Your task to perform on an android device: turn off notifications settings in the gmail app Image 0: 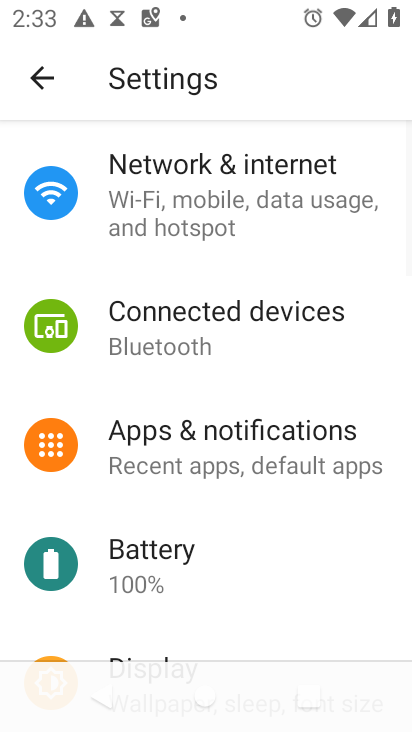
Step 0: press back button
Your task to perform on an android device: turn off notifications settings in the gmail app Image 1: 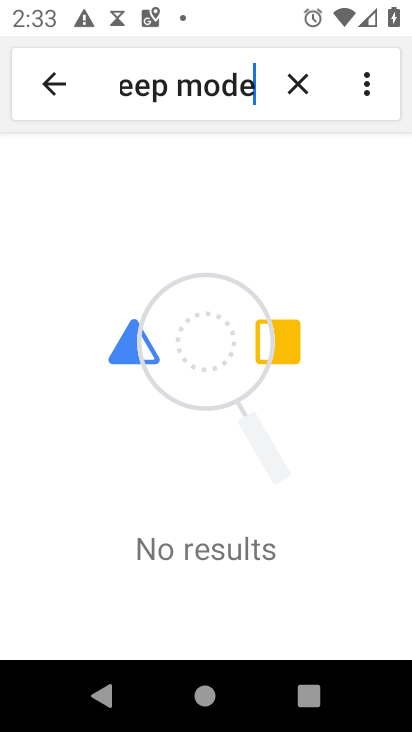
Step 1: press back button
Your task to perform on an android device: turn off notifications settings in the gmail app Image 2: 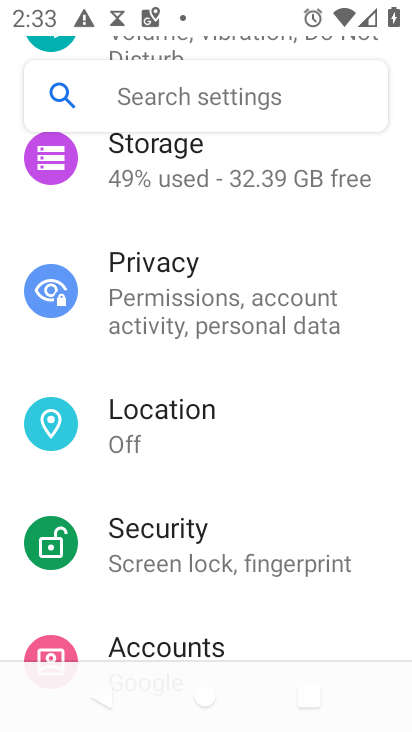
Step 2: press back button
Your task to perform on an android device: turn off notifications settings in the gmail app Image 3: 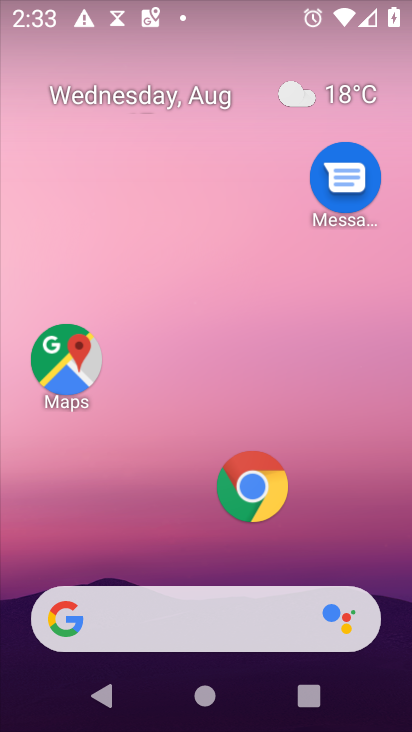
Step 3: drag from (145, 561) to (254, 6)
Your task to perform on an android device: turn off notifications settings in the gmail app Image 4: 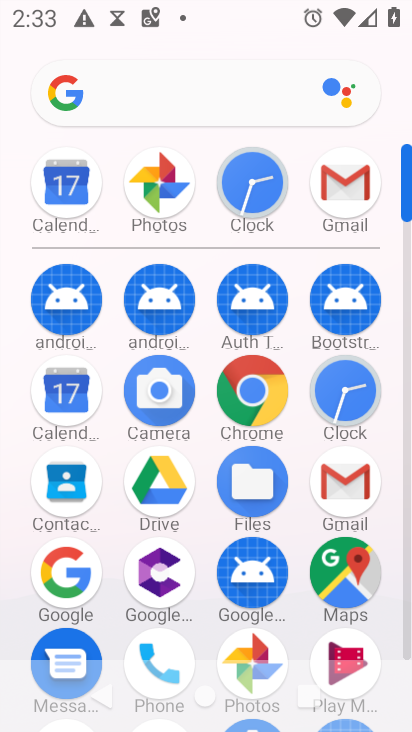
Step 4: click (349, 198)
Your task to perform on an android device: turn off notifications settings in the gmail app Image 5: 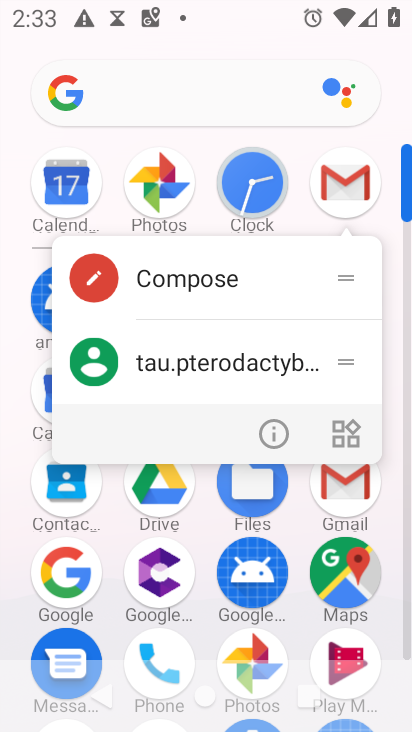
Step 5: click (270, 433)
Your task to perform on an android device: turn off notifications settings in the gmail app Image 6: 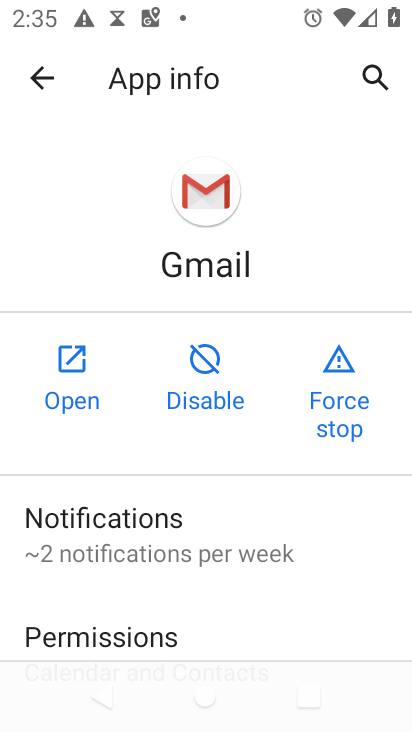
Step 6: click (155, 534)
Your task to perform on an android device: turn off notifications settings in the gmail app Image 7: 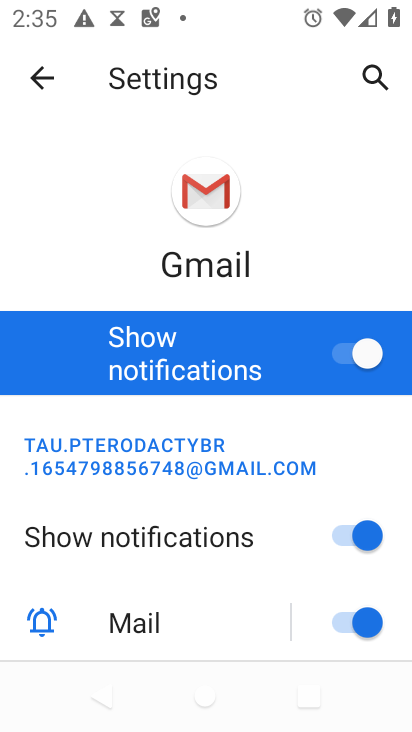
Step 7: click (352, 358)
Your task to perform on an android device: turn off notifications settings in the gmail app Image 8: 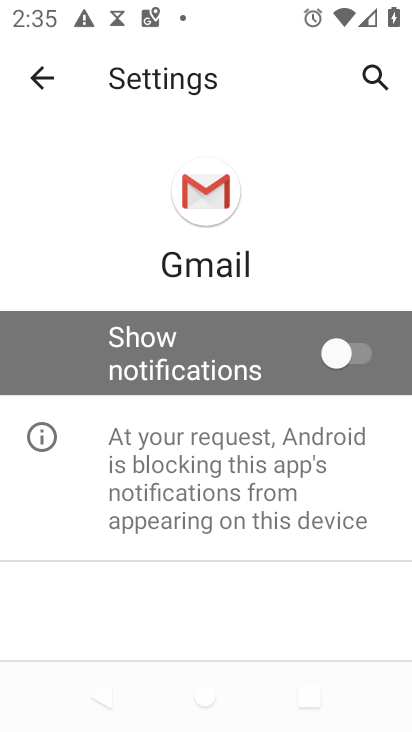
Step 8: task complete